Your task to perform on an android device: Go to display settings Image 0: 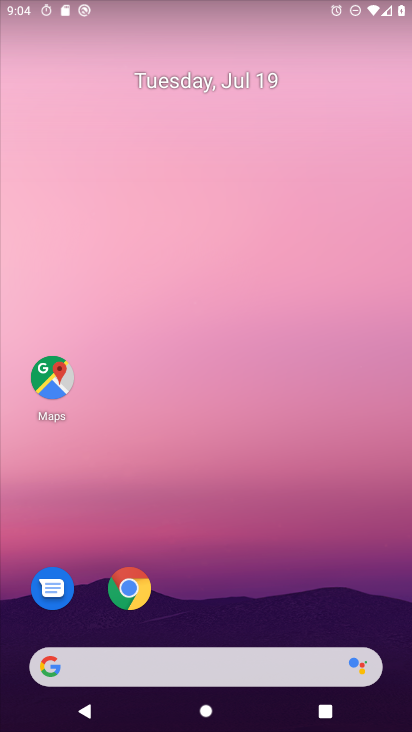
Step 0: drag from (210, 608) to (226, 194)
Your task to perform on an android device: Go to display settings Image 1: 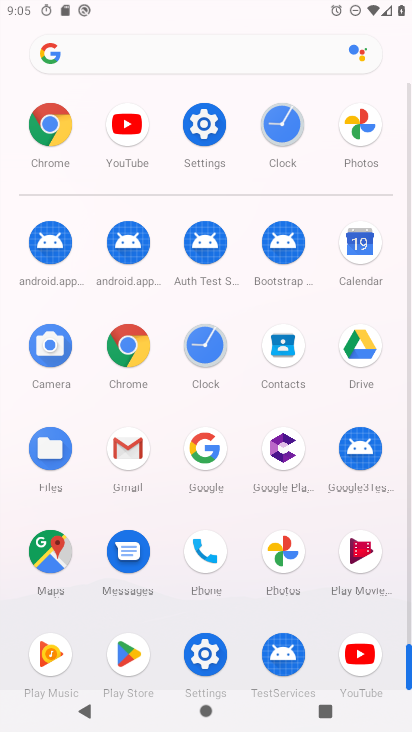
Step 1: click (218, 653)
Your task to perform on an android device: Go to display settings Image 2: 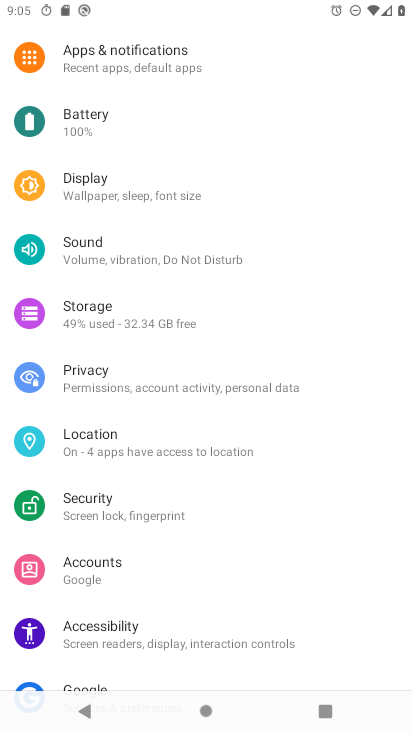
Step 2: click (137, 192)
Your task to perform on an android device: Go to display settings Image 3: 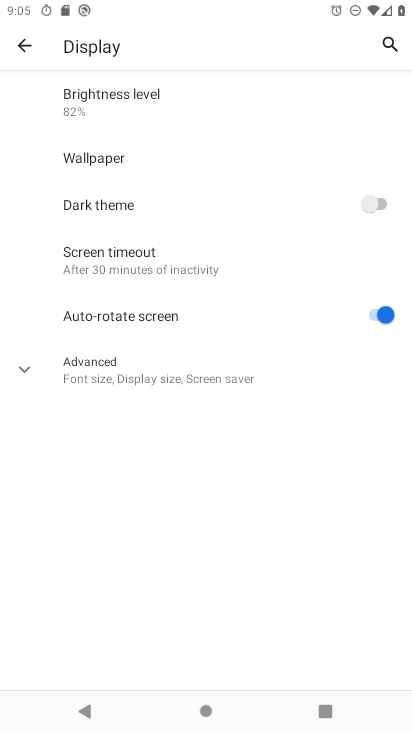
Step 3: task complete